Your task to perform on an android device: Do I have any events today? Image 0: 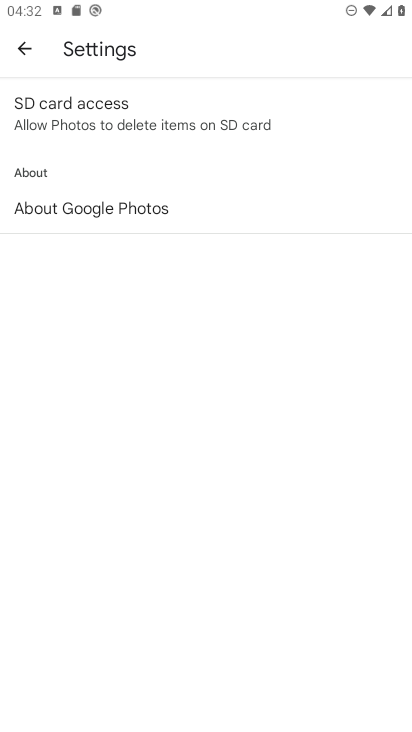
Step 0: press home button
Your task to perform on an android device: Do I have any events today? Image 1: 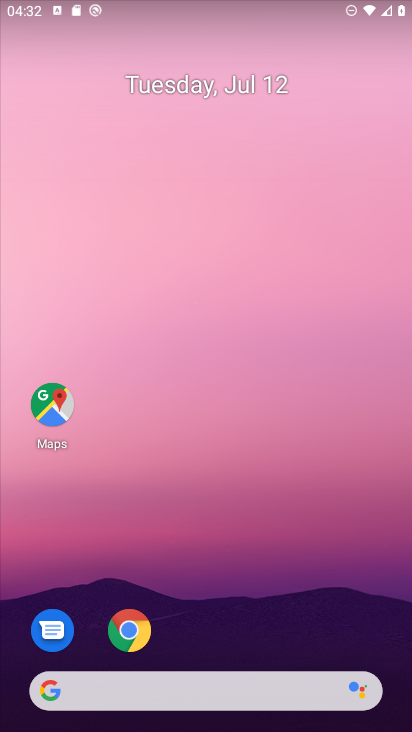
Step 1: drag from (369, 633) to (337, 133)
Your task to perform on an android device: Do I have any events today? Image 2: 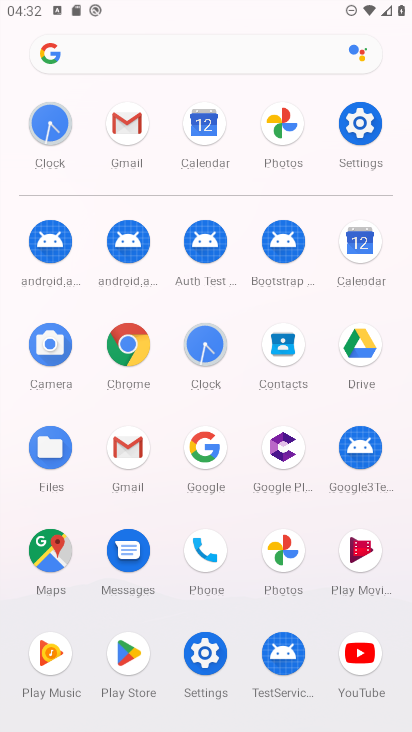
Step 2: click (358, 243)
Your task to perform on an android device: Do I have any events today? Image 3: 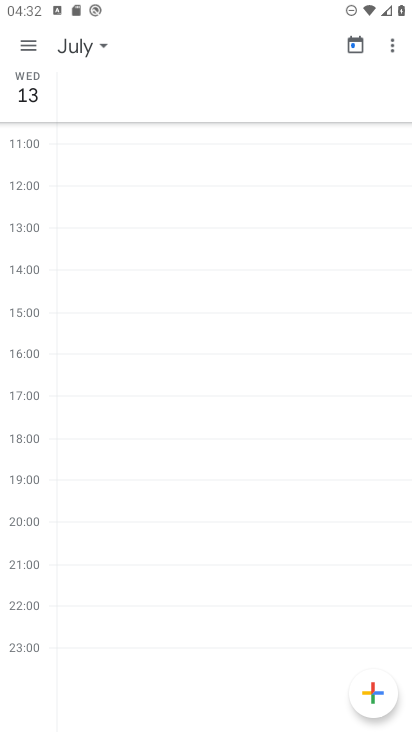
Step 3: click (27, 44)
Your task to perform on an android device: Do I have any events today? Image 4: 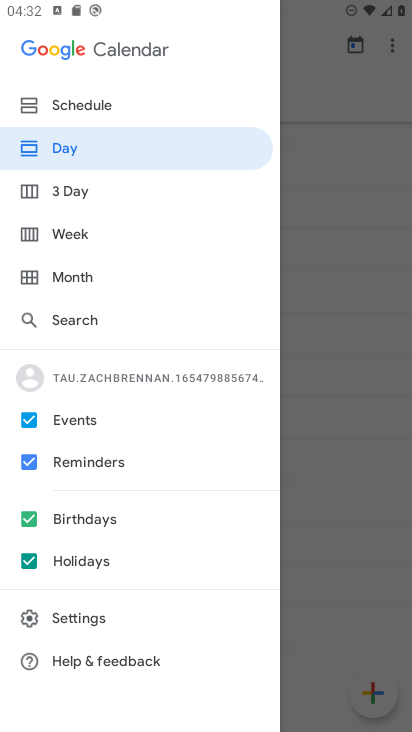
Step 4: click (102, 158)
Your task to perform on an android device: Do I have any events today? Image 5: 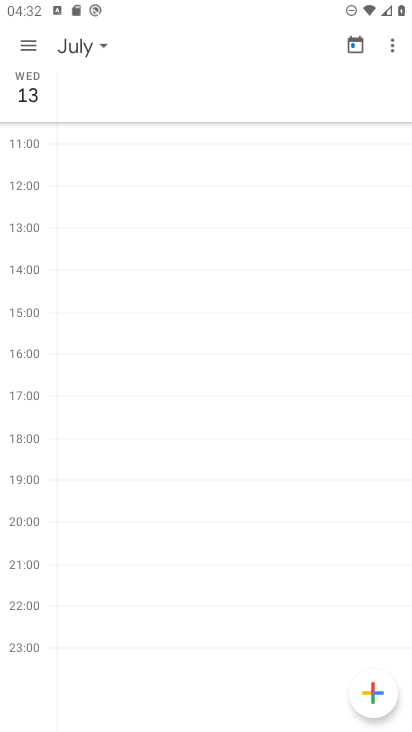
Step 5: click (101, 43)
Your task to perform on an android device: Do I have any events today? Image 6: 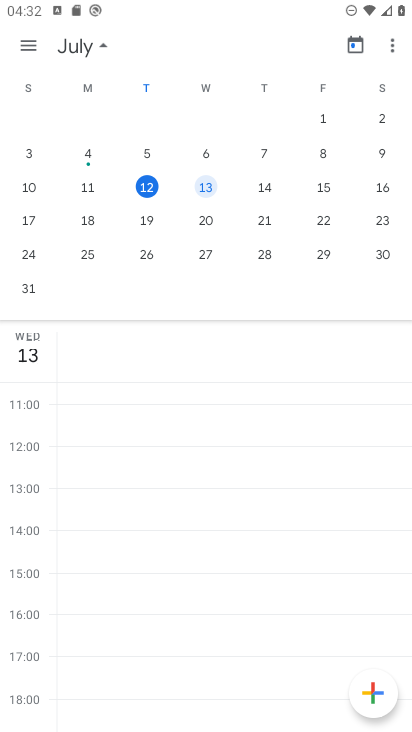
Step 6: click (145, 191)
Your task to perform on an android device: Do I have any events today? Image 7: 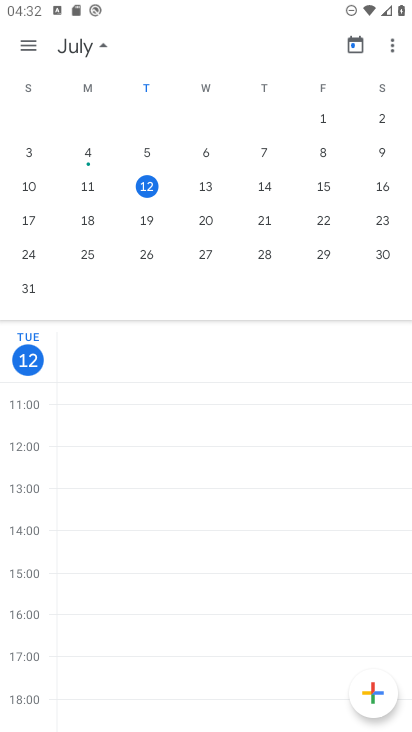
Step 7: task complete